Your task to perform on an android device: check storage Image 0: 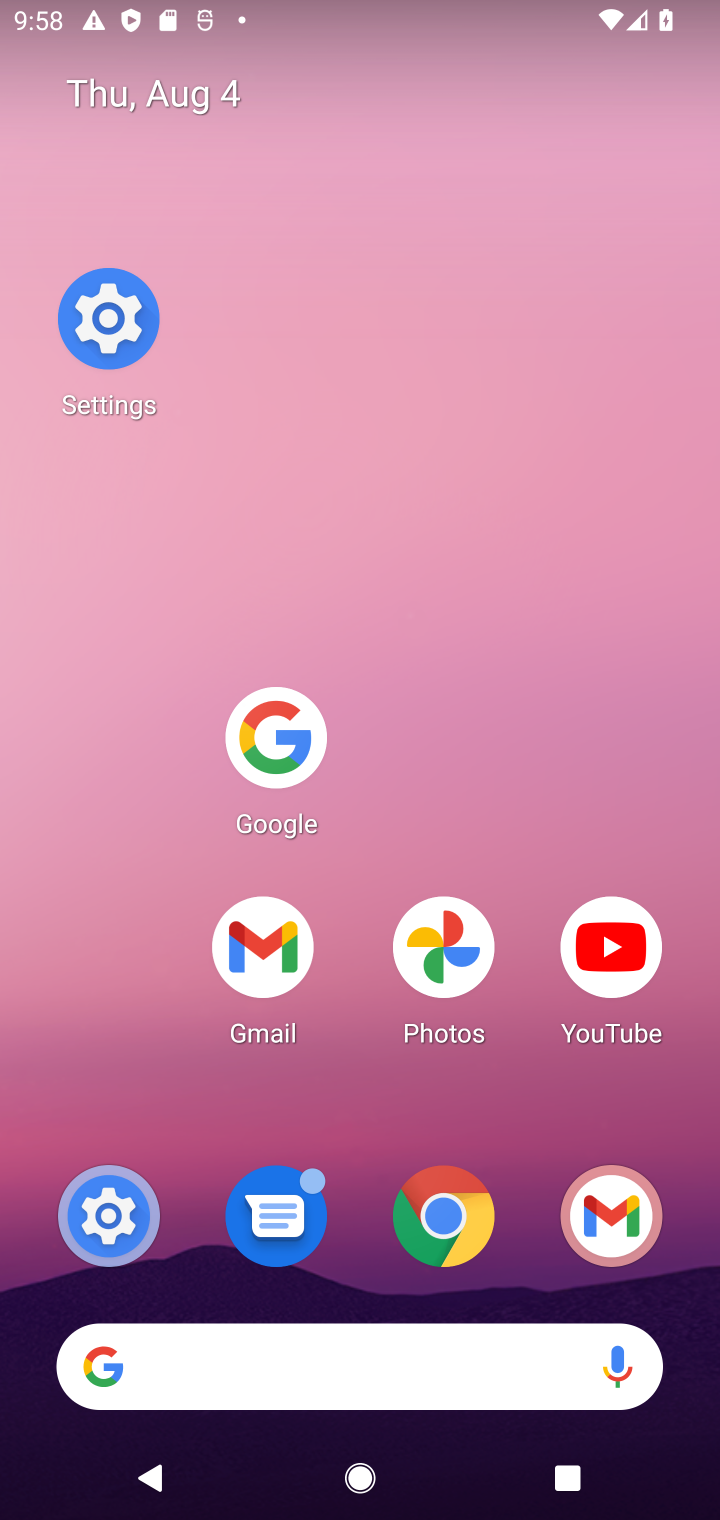
Step 0: click (120, 292)
Your task to perform on an android device: check storage Image 1: 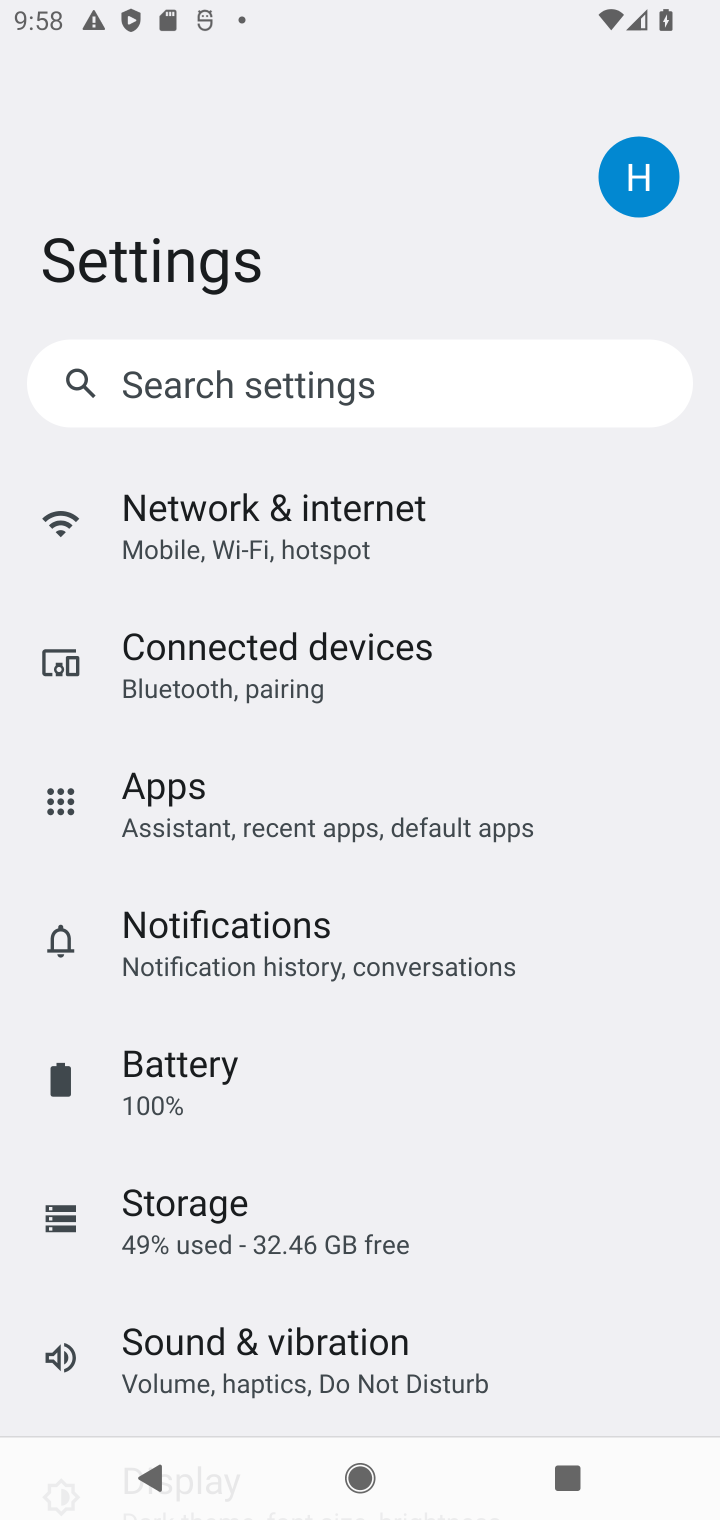
Step 1: click (358, 475)
Your task to perform on an android device: check storage Image 2: 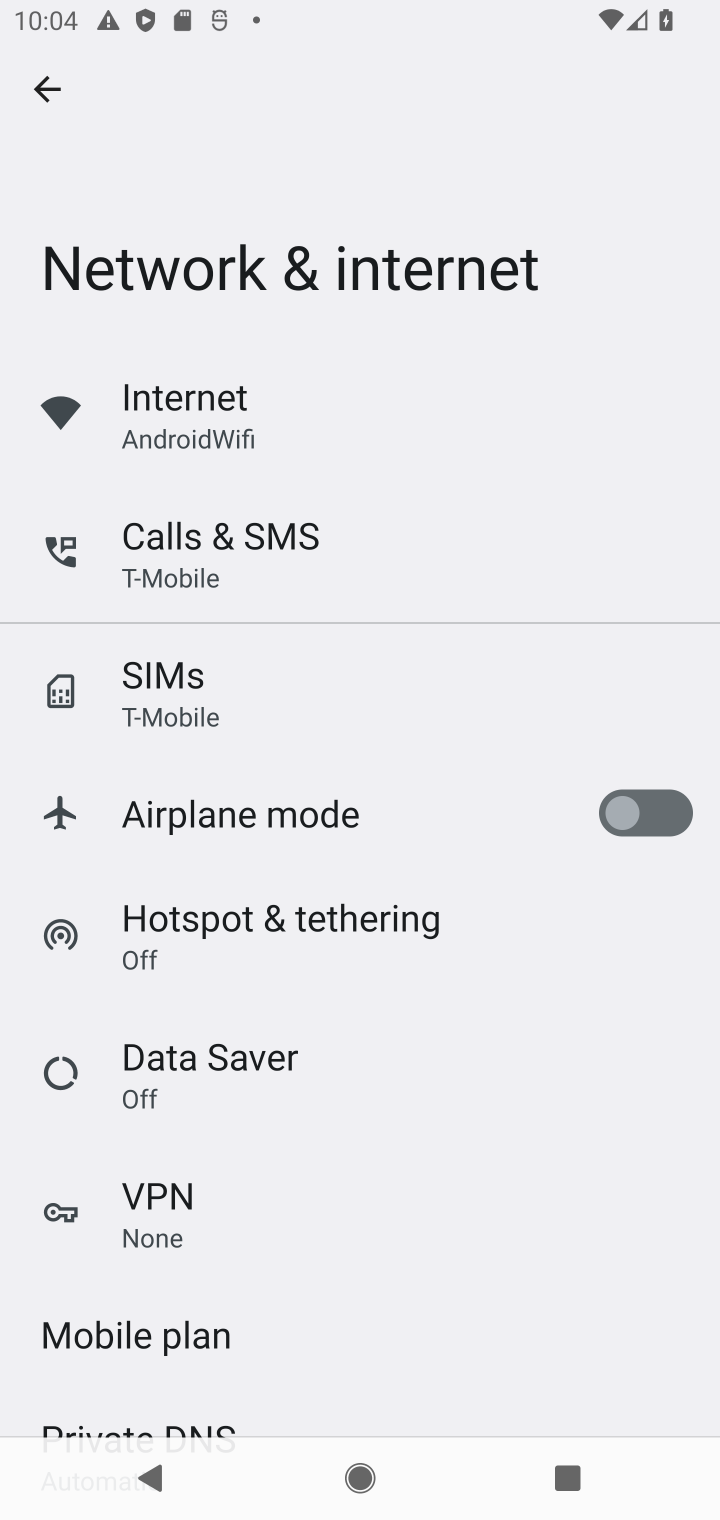
Step 2: press home button
Your task to perform on an android device: check storage Image 3: 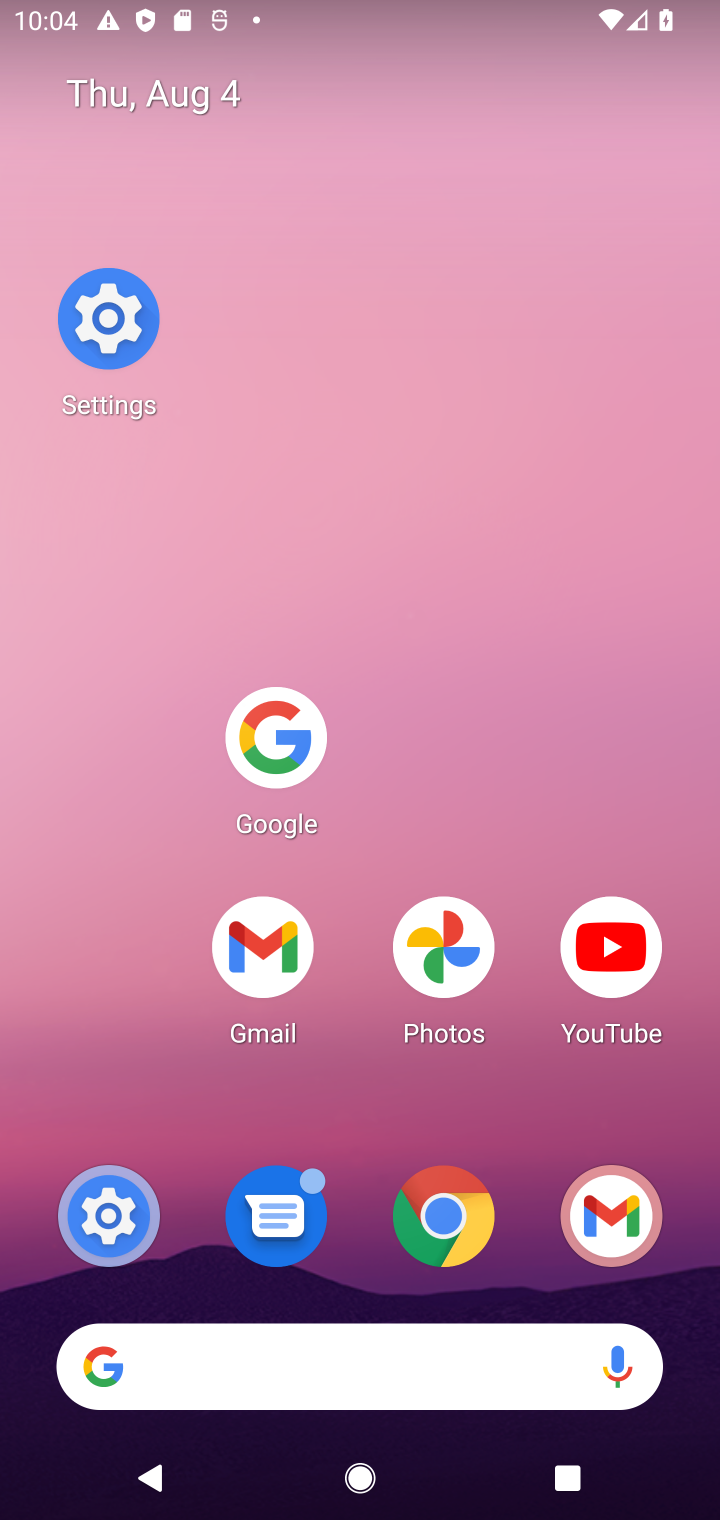
Step 3: click (90, 323)
Your task to perform on an android device: check storage Image 4: 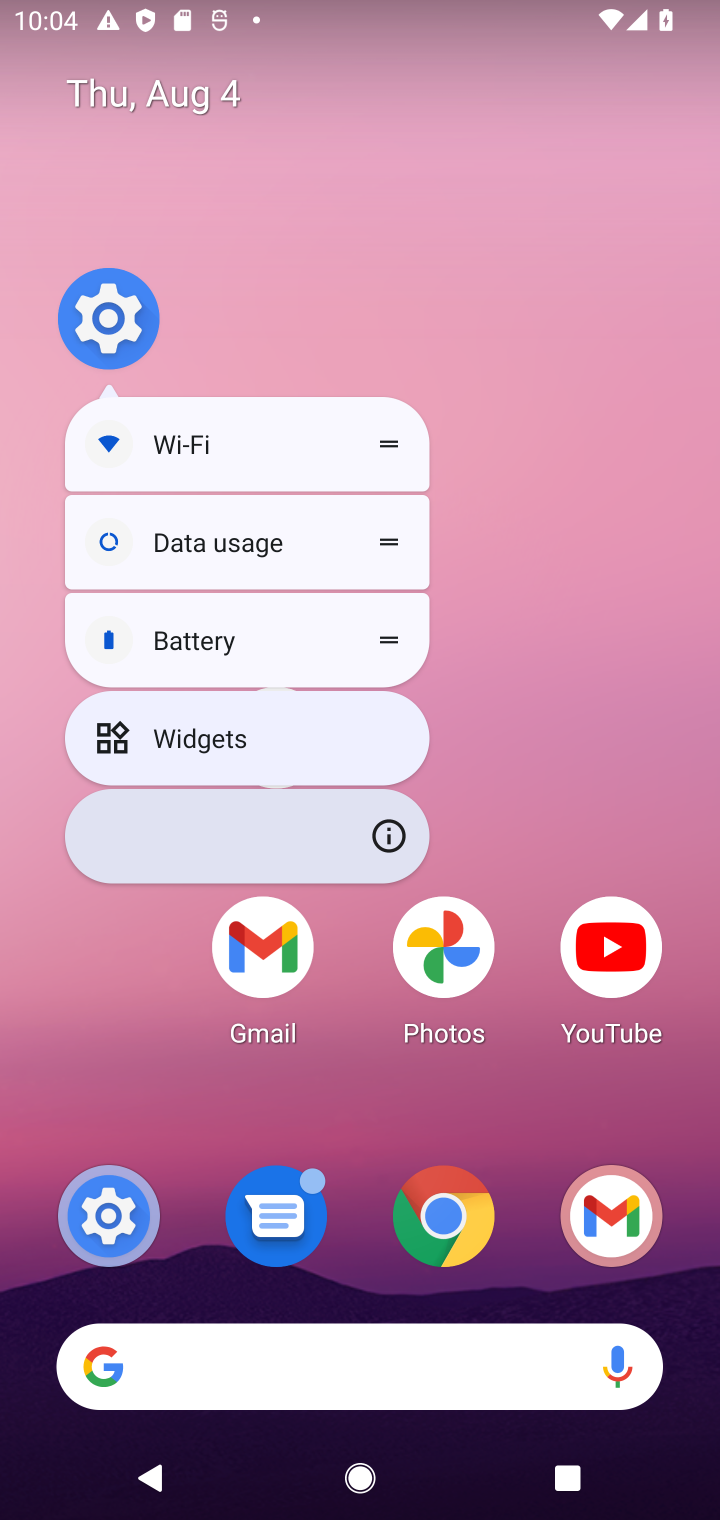
Step 4: click (106, 310)
Your task to perform on an android device: check storage Image 5: 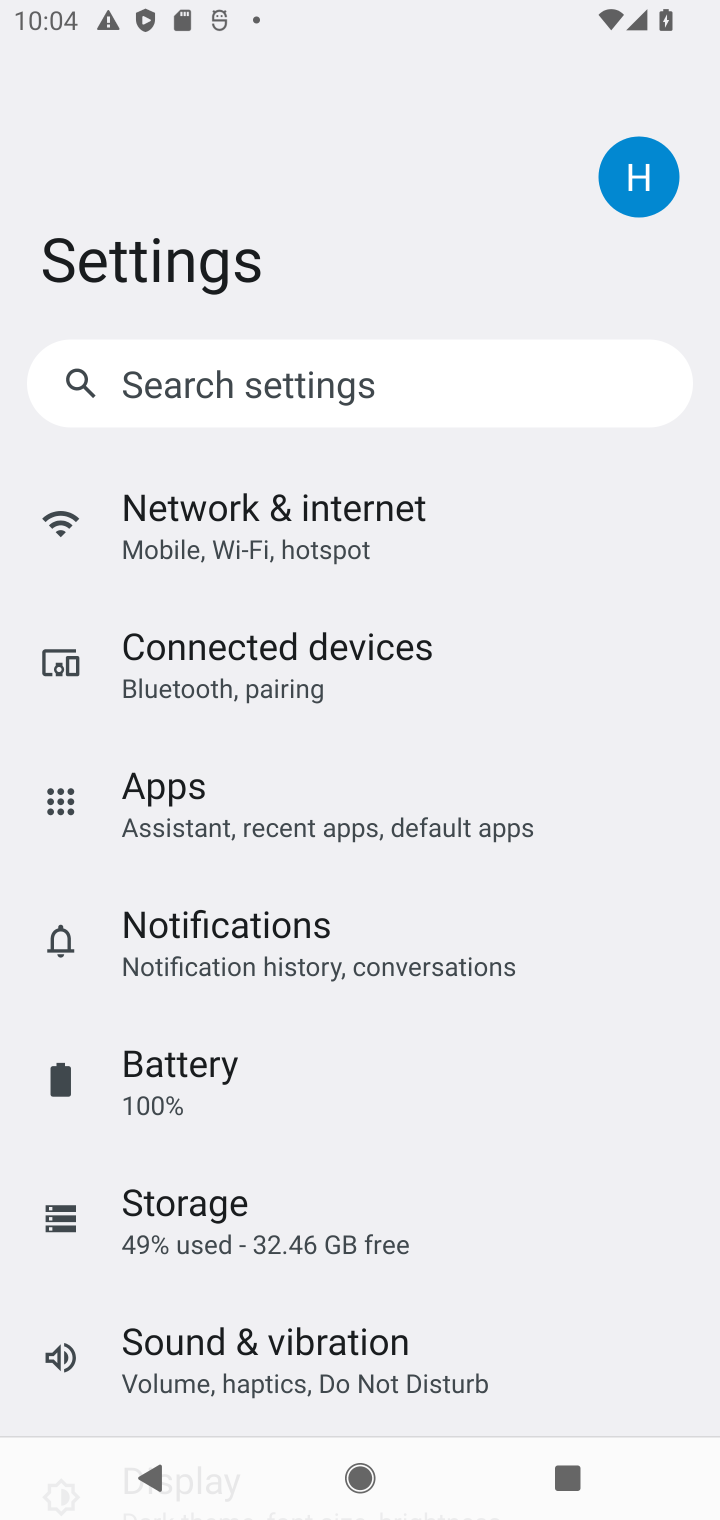
Step 5: click (311, 1237)
Your task to perform on an android device: check storage Image 6: 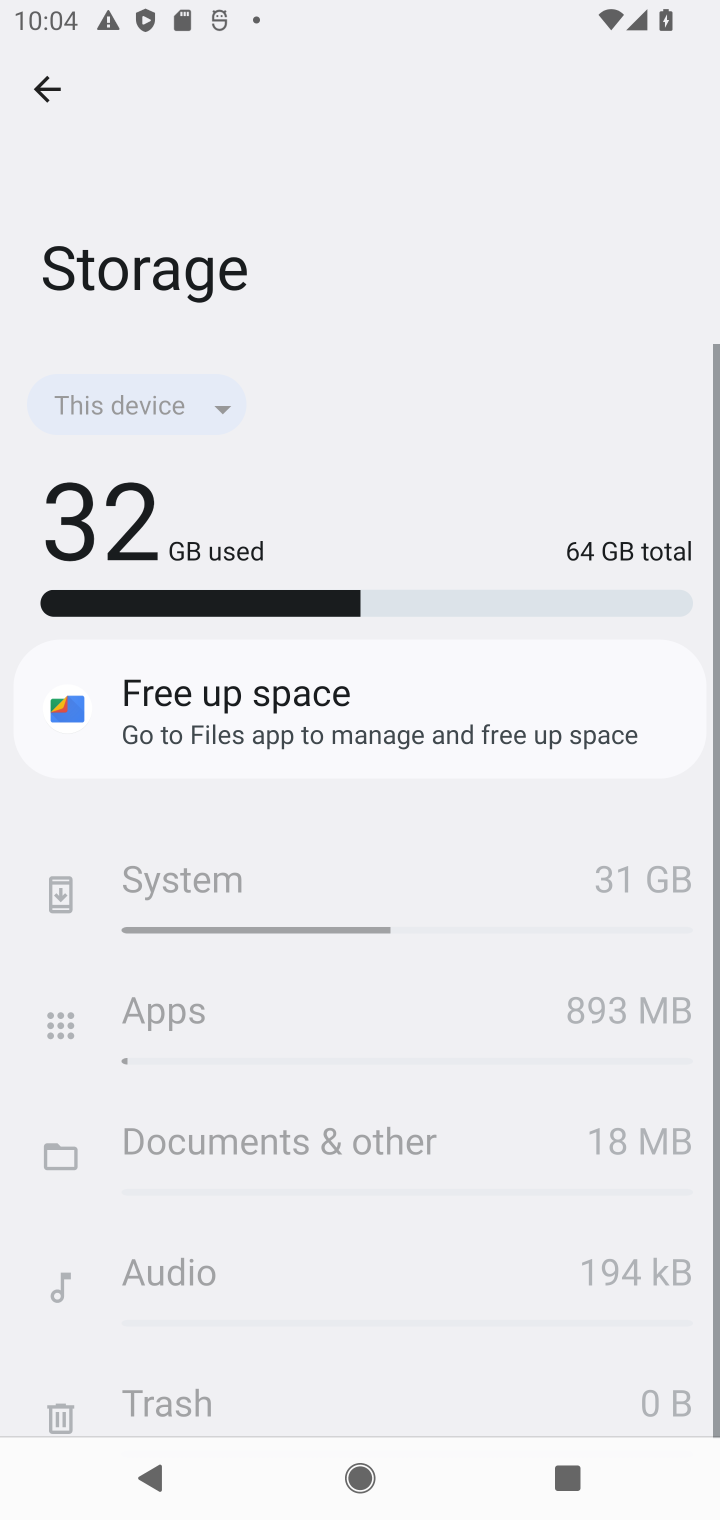
Step 6: task complete